Your task to perform on an android device: open app "Indeed Job Search" (install if not already installed) Image 0: 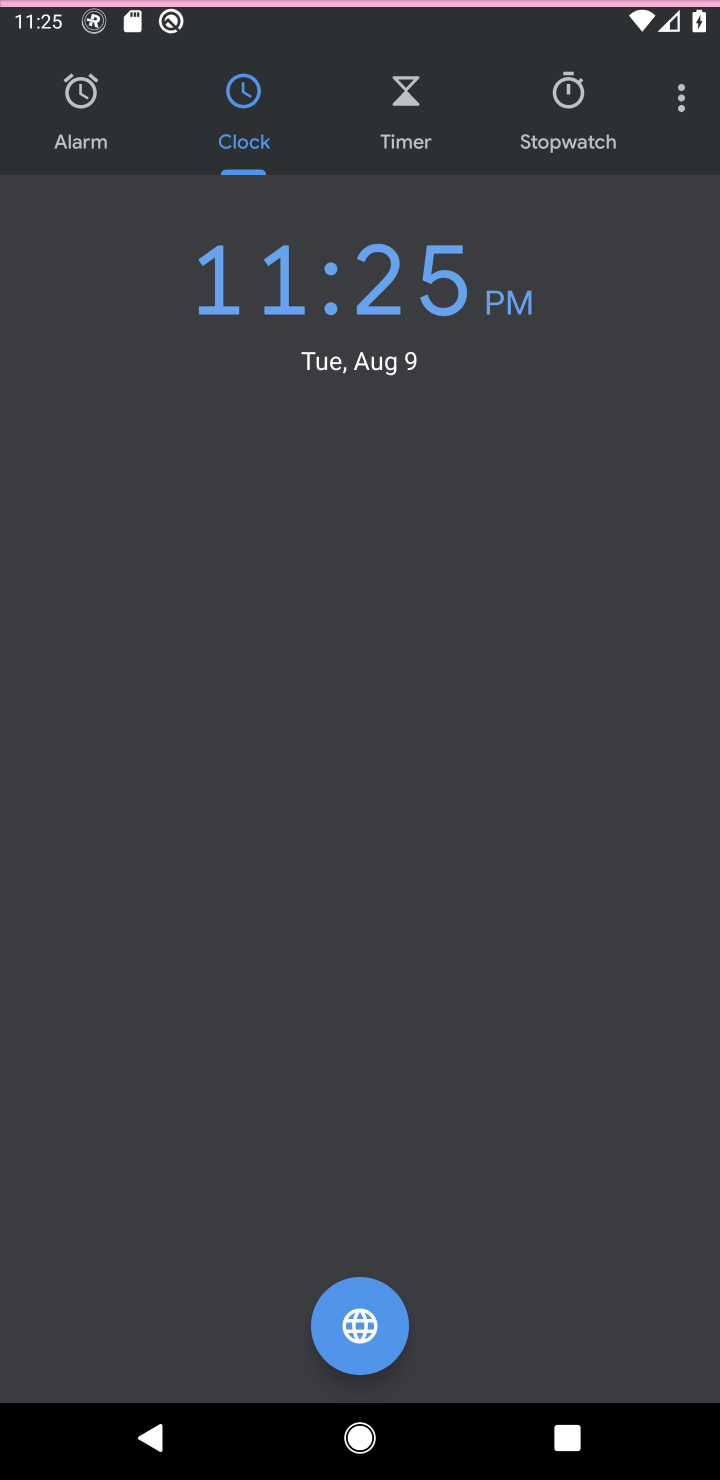
Step 0: press home button
Your task to perform on an android device: open app "Indeed Job Search" (install if not already installed) Image 1: 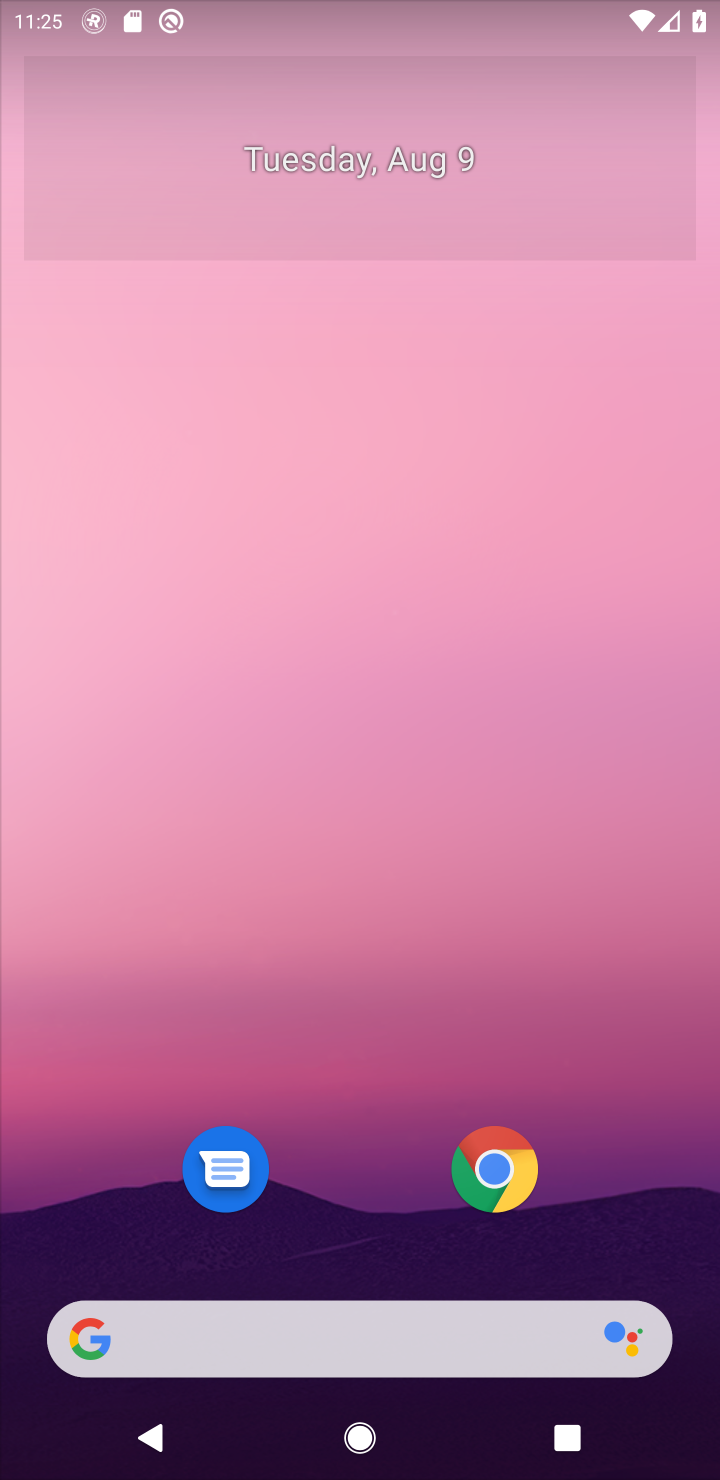
Step 1: drag from (607, 1223) to (644, 137)
Your task to perform on an android device: open app "Indeed Job Search" (install if not already installed) Image 2: 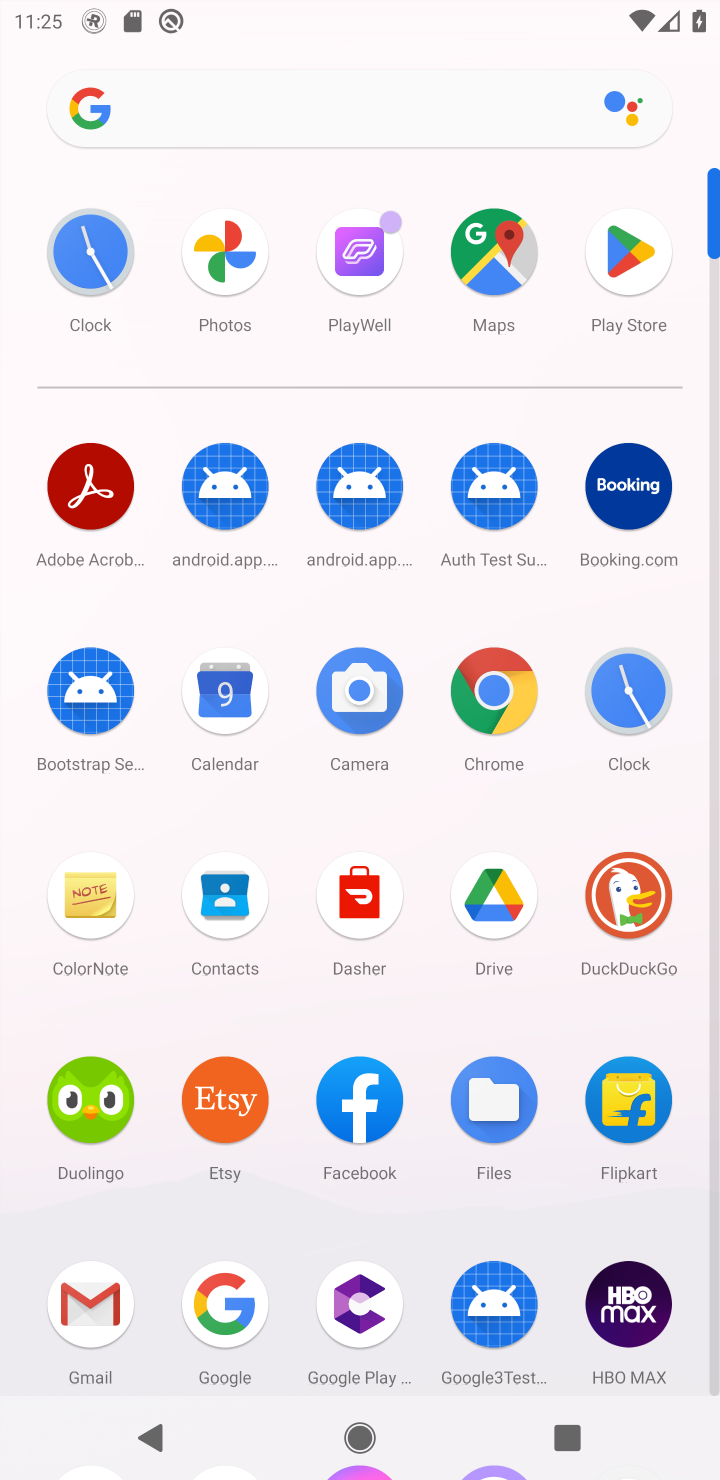
Step 2: click (631, 254)
Your task to perform on an android device: open app "Indeed Job Search" (install if not already installed) Image 3: 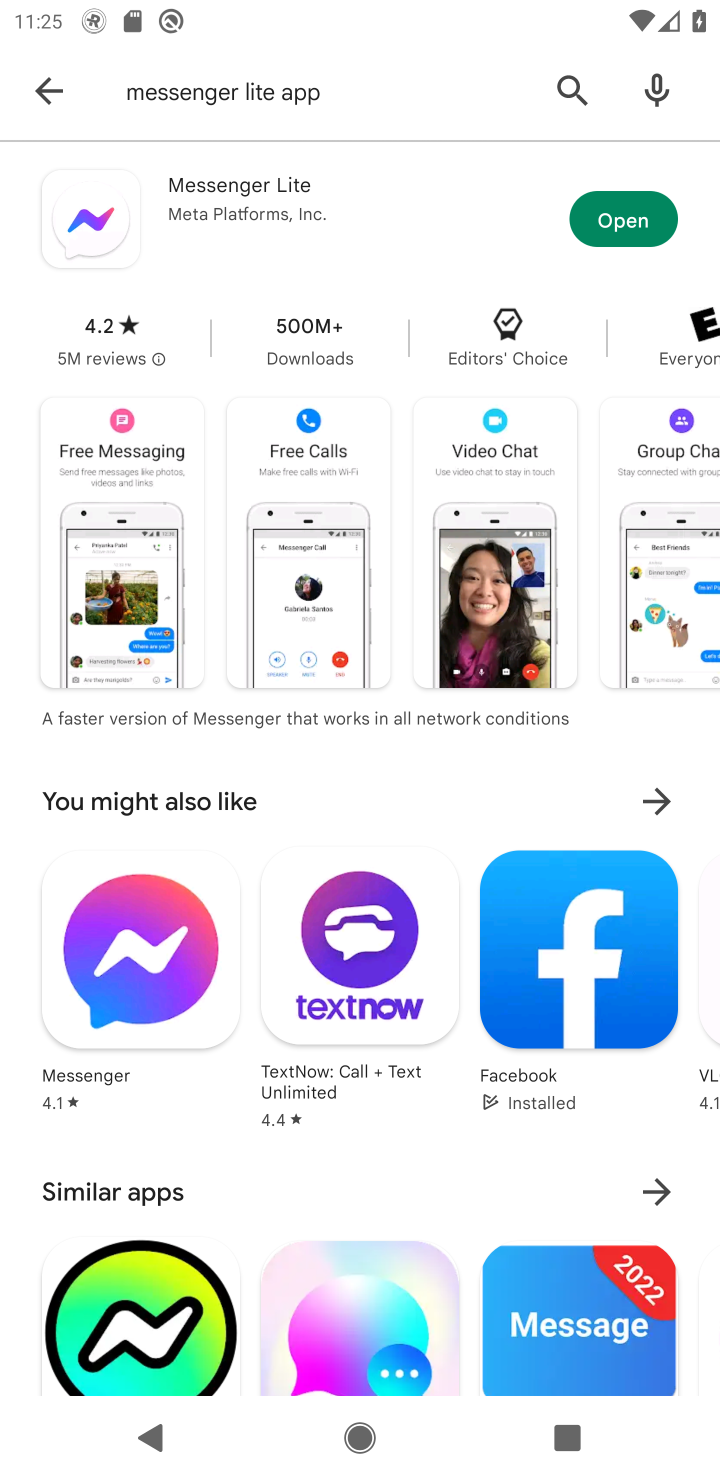
Step 3: click (568, 86)
Your task to perform on an android device: open app "Indeed Job Search" (install if not already installed) Image 4: 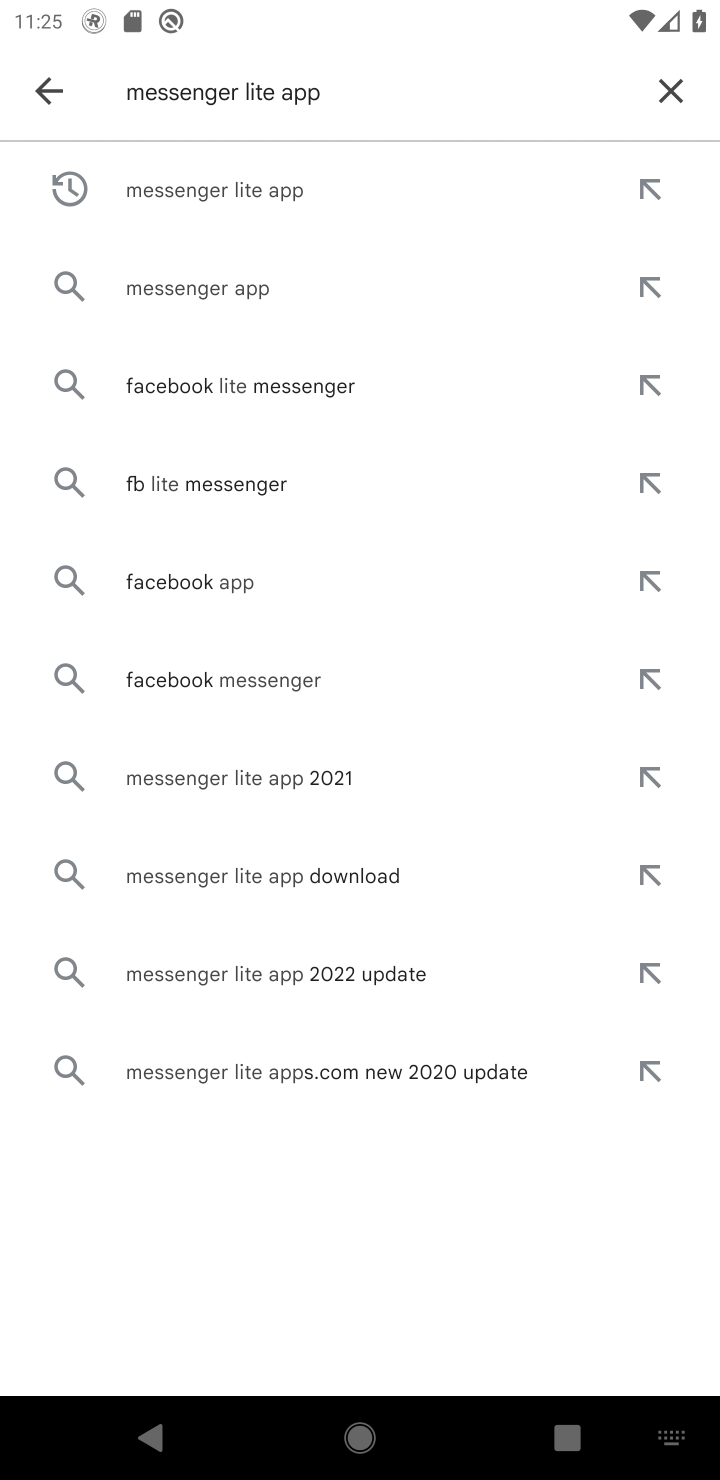
Step 4: click (675, 97)
Your task to perform on an android device: open app "Indeed Job Search" (install if not already installed) Image 5: 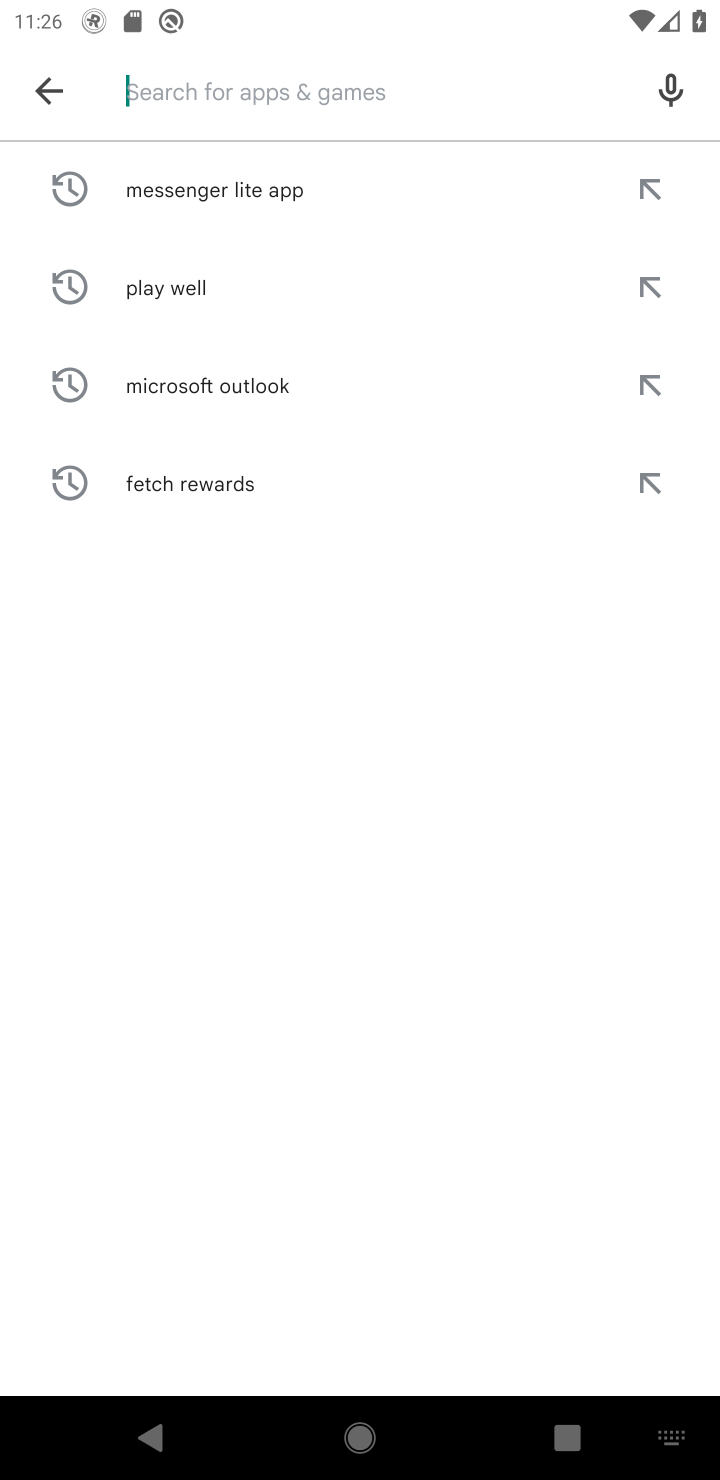
Step 5: type "indeed job search "
Your task to perform on an android device: open app "Indeed Job Search" (install if not already installed) Image 6: 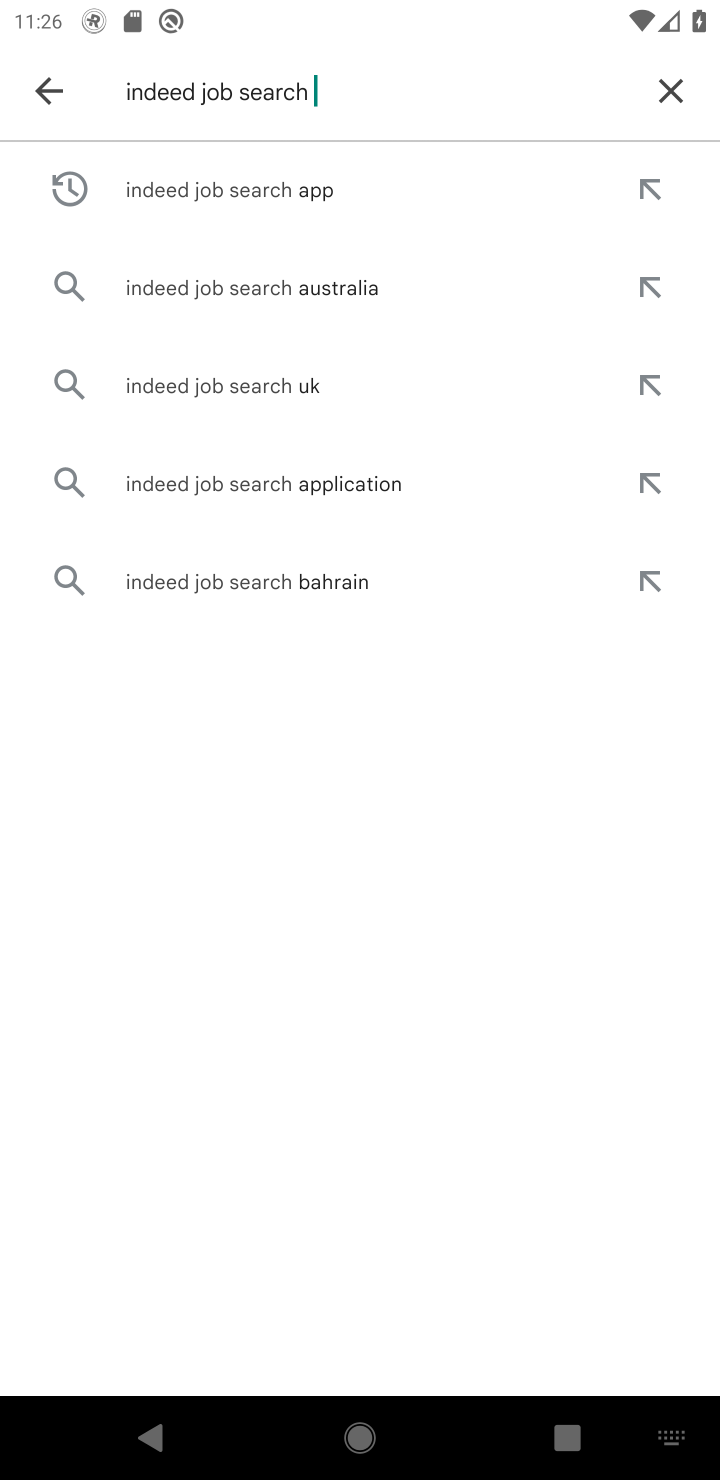
Step 6: click (341, 180)
Your task to perform on an android device: open app "Indeed Job Search" (install if not already installed) Image 7: 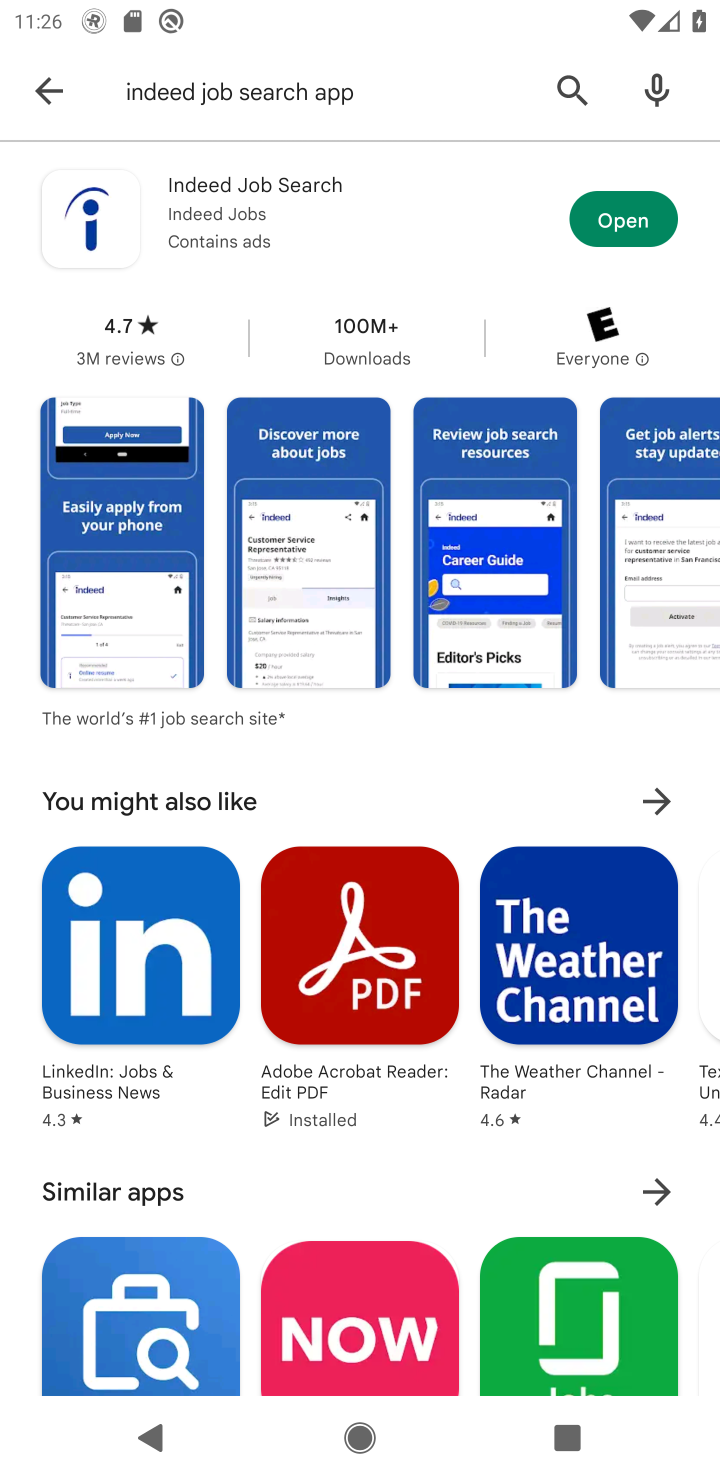
Step 7: click (628, 223)
Your task to perform on an android device: open app "Indeed Job Search" (install if not already installed) Image 8: 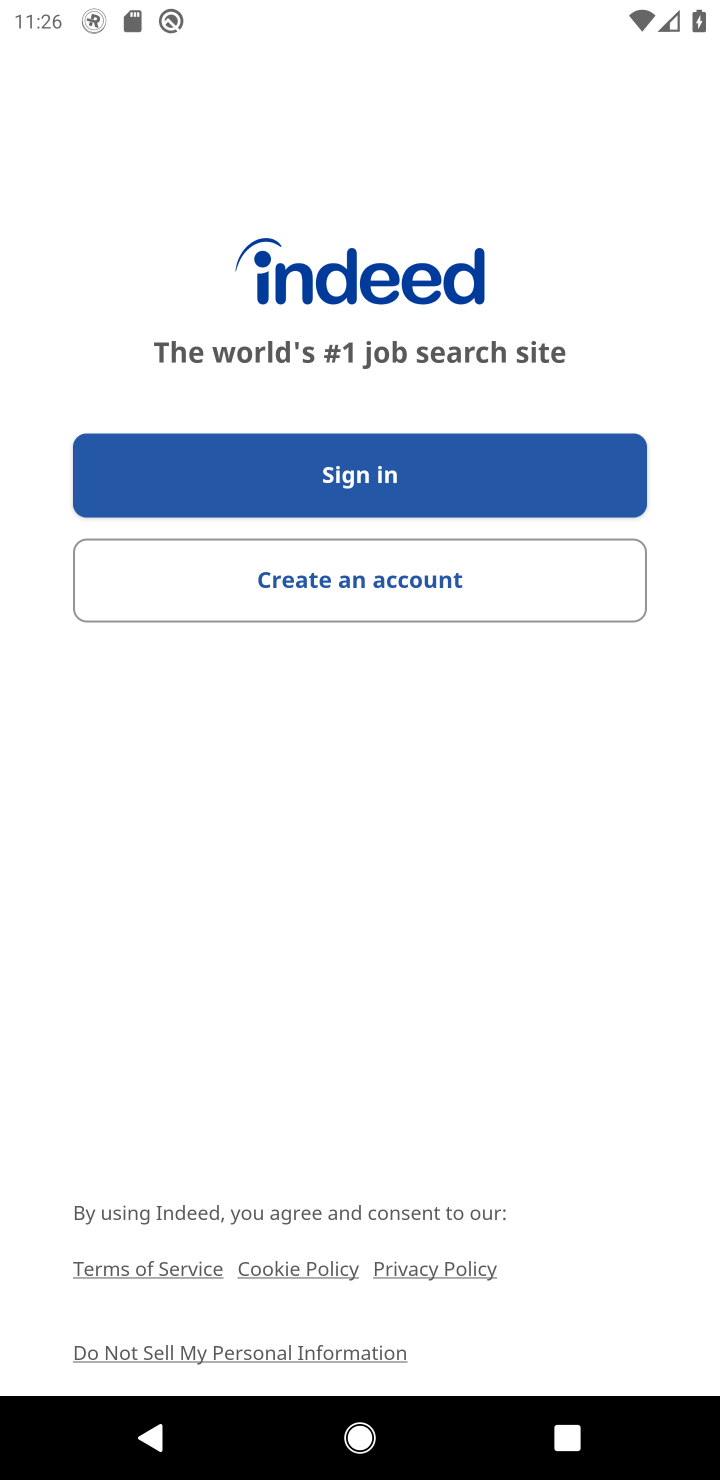
Step 8: task complete